Your task to perform on an android device: turn off airplane mode Image 0: 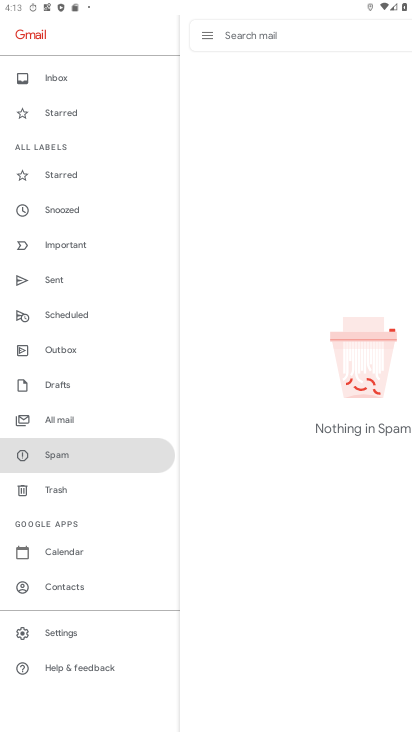
Step 0: press home button
Your task to perform on an android device: turn off airplane mode Image 1: 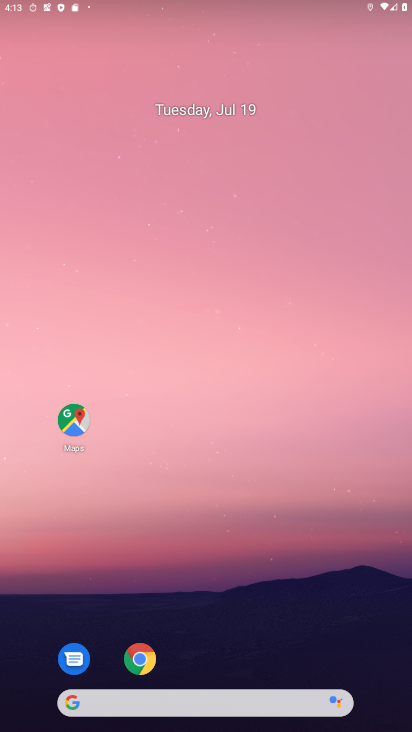
Step 1: drag from (249, 543) to (146, 0)
Your task to perform on an android device: turn off airplane mode Image 2: 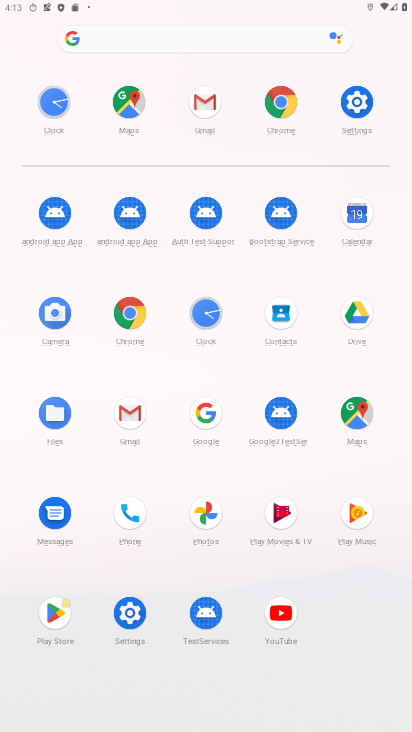
Step 2: click (360, 109)
Your task to perform on an android device: turn off airplane mode Image 3: 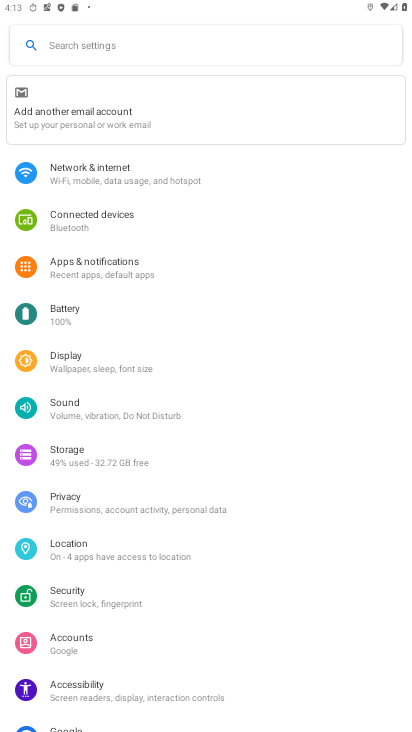
Step 3: click (122, 175)
Your task to perform on an android device: turn off airplane mode Image 4: 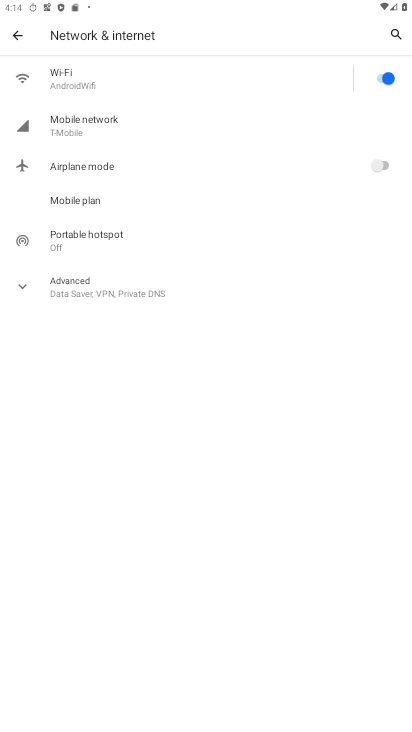
Step 4: task complete